Your task to perform on an android device: Open battery settings Image 0: 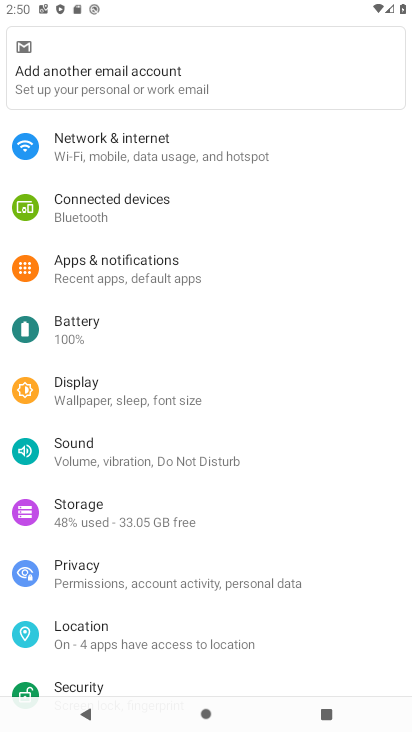
Step 0: click (69, 327)
Your task to perform on an android device: Open battery settings Image 1: 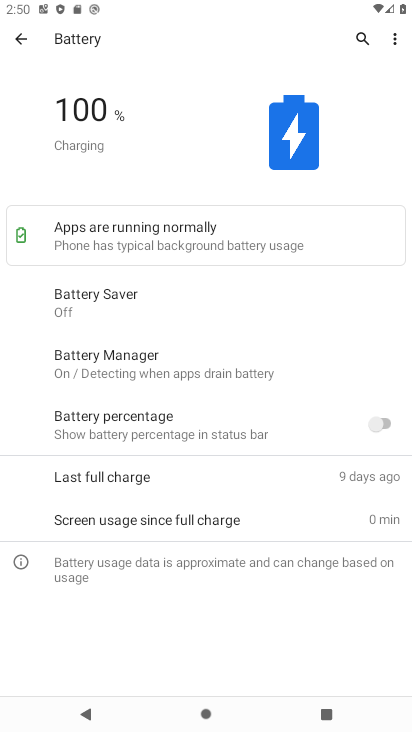
Step 1: task complete